Your task to perform on an android device: Show me productivity apps on the Play Store Image 0: 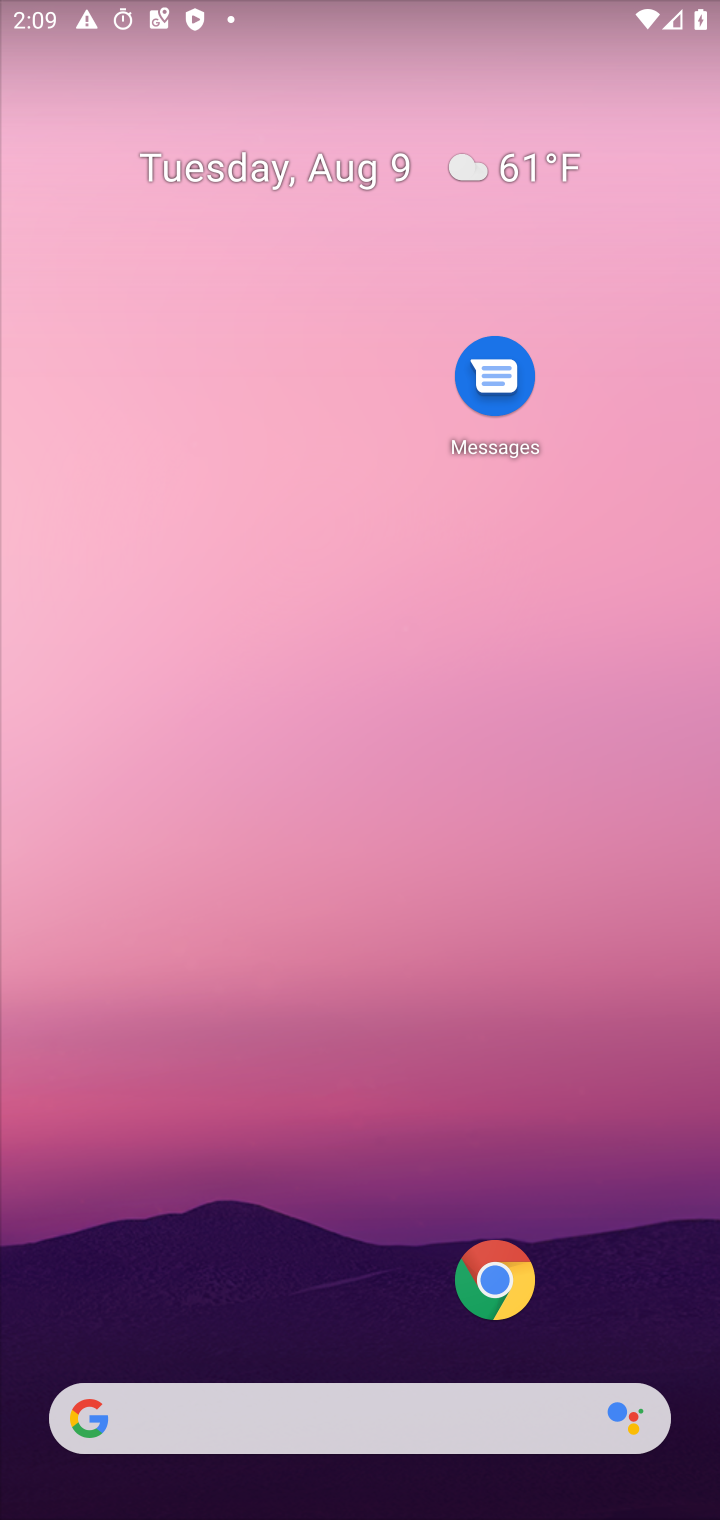
Step 0: press home button
Your task to perform on an android device: Show me productivity apps on the Play Store Image 1: 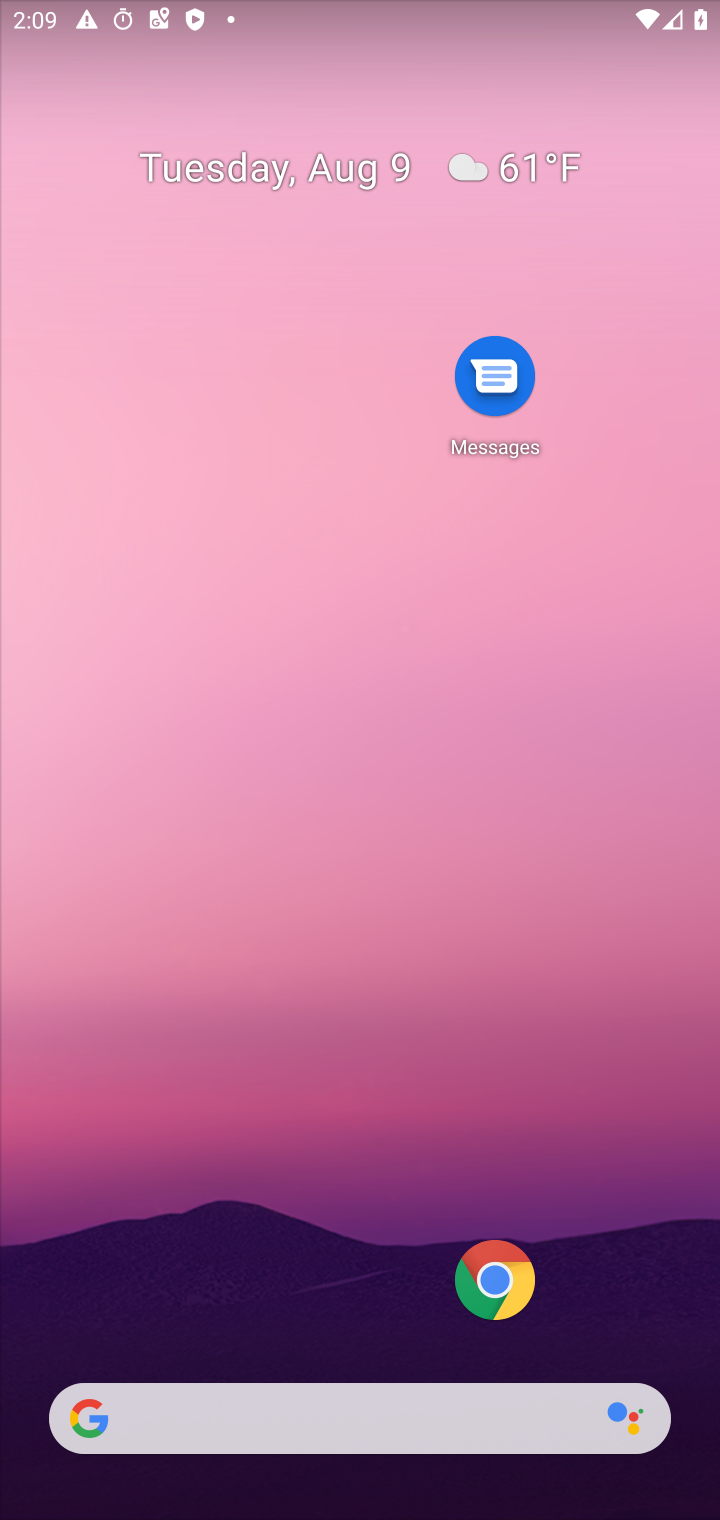
Step 1: drag from (402, 1257) to (613, 409)
Your task to perform on an android device: Show me productivity apps on the Play Store Image 2: 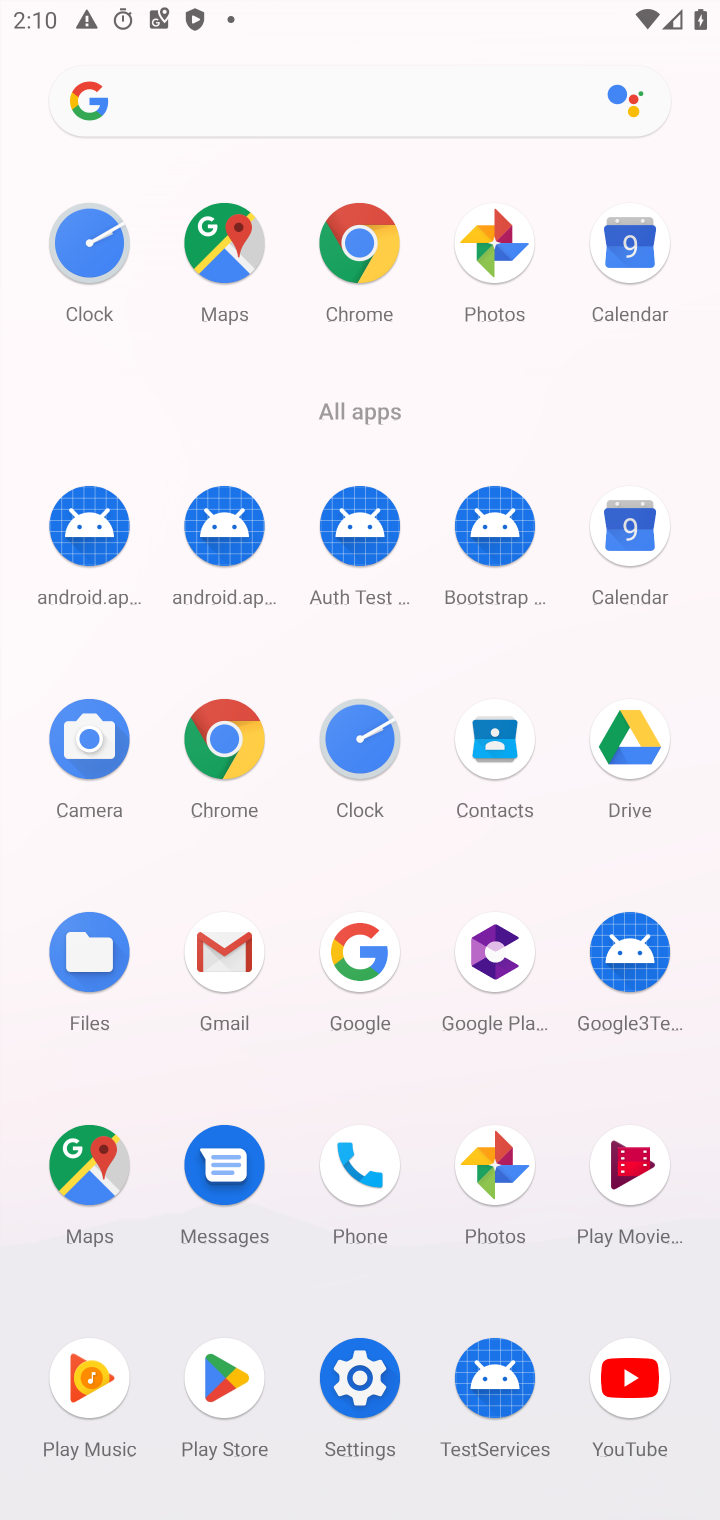
Step 2: click (216, 1366)
Your task to perform on an android device: Show me productivity apps on the Play Store Image 3: 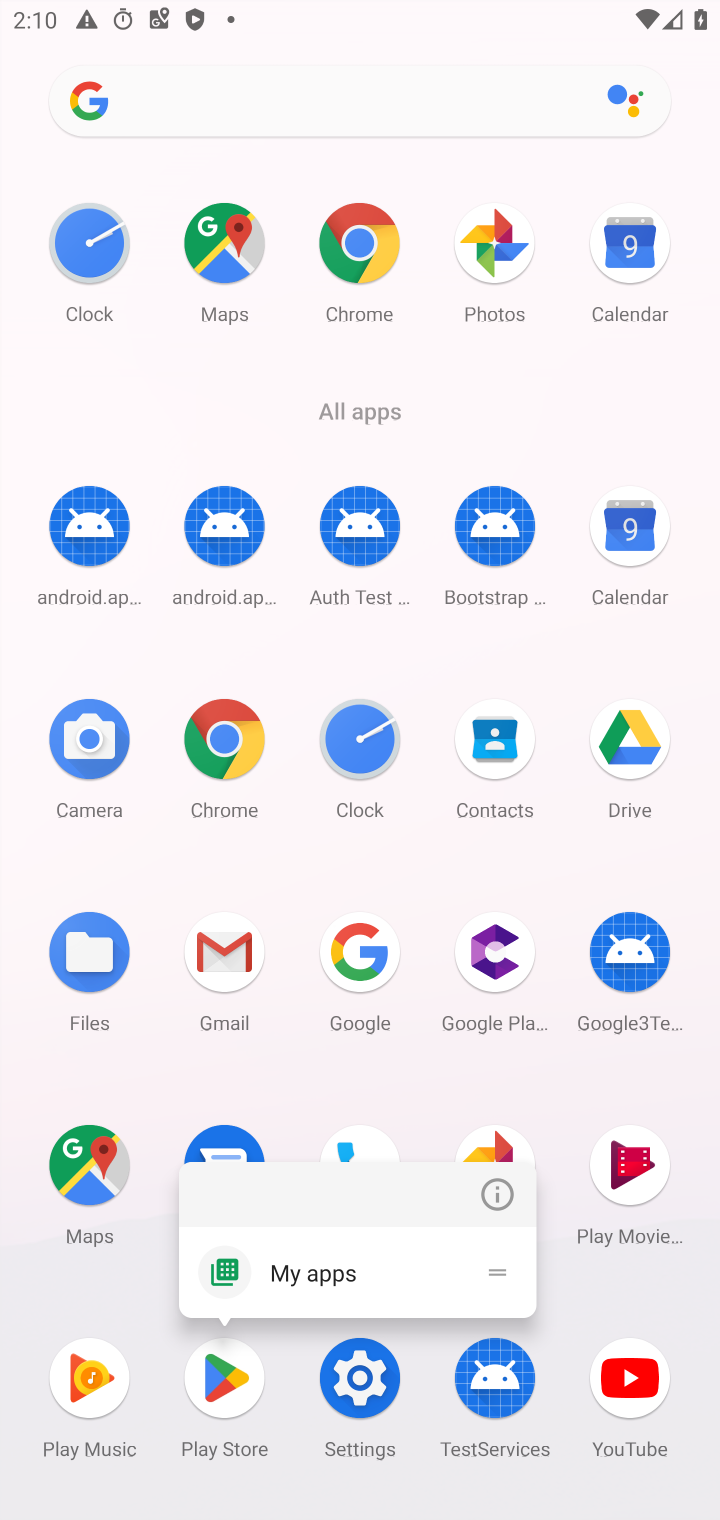
Step 3: click (216, 1385)
Your task to perform on an android device: Show me productivity apps on the Play Store Image 4: 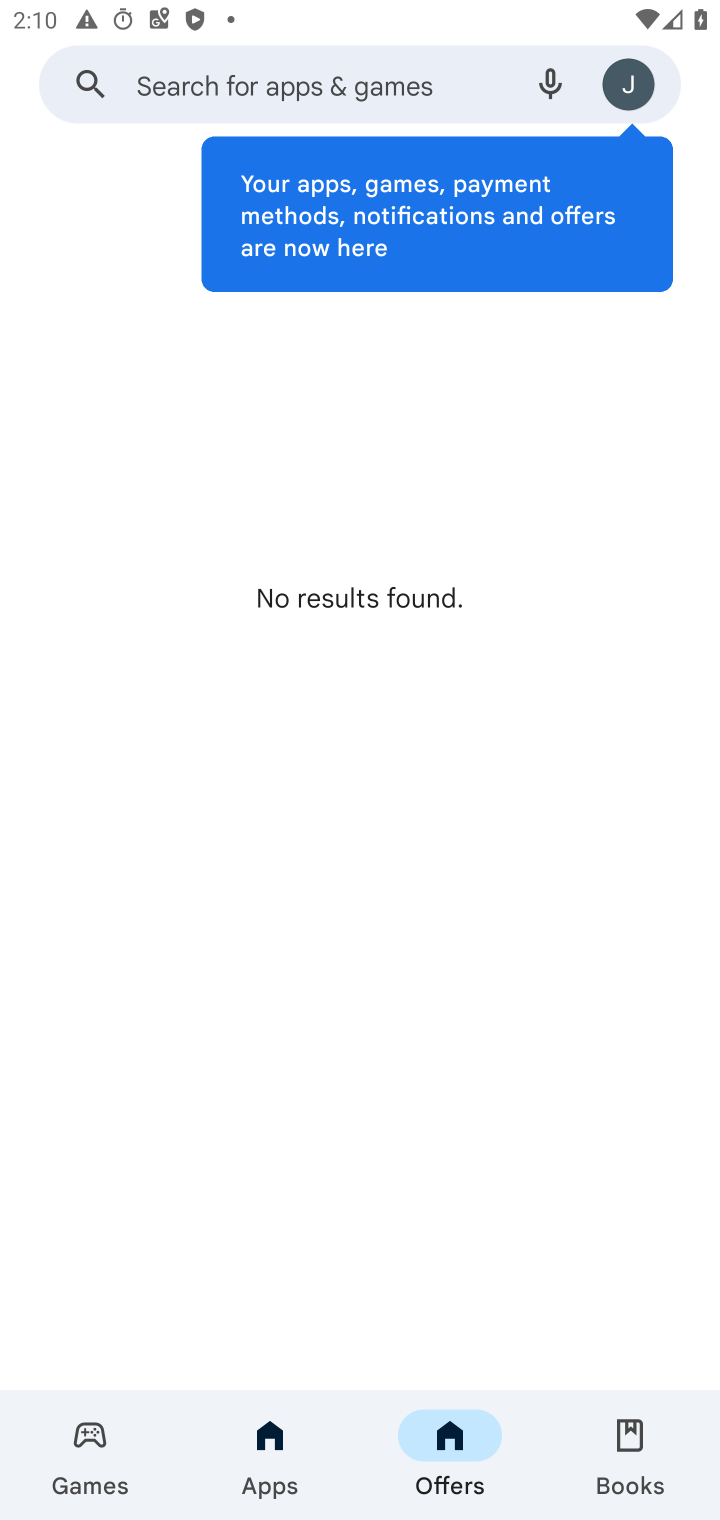
Step 4: click (274, 1435)
Your task to perform on an android device: Show me productivity apps on the Play Store Image 5: 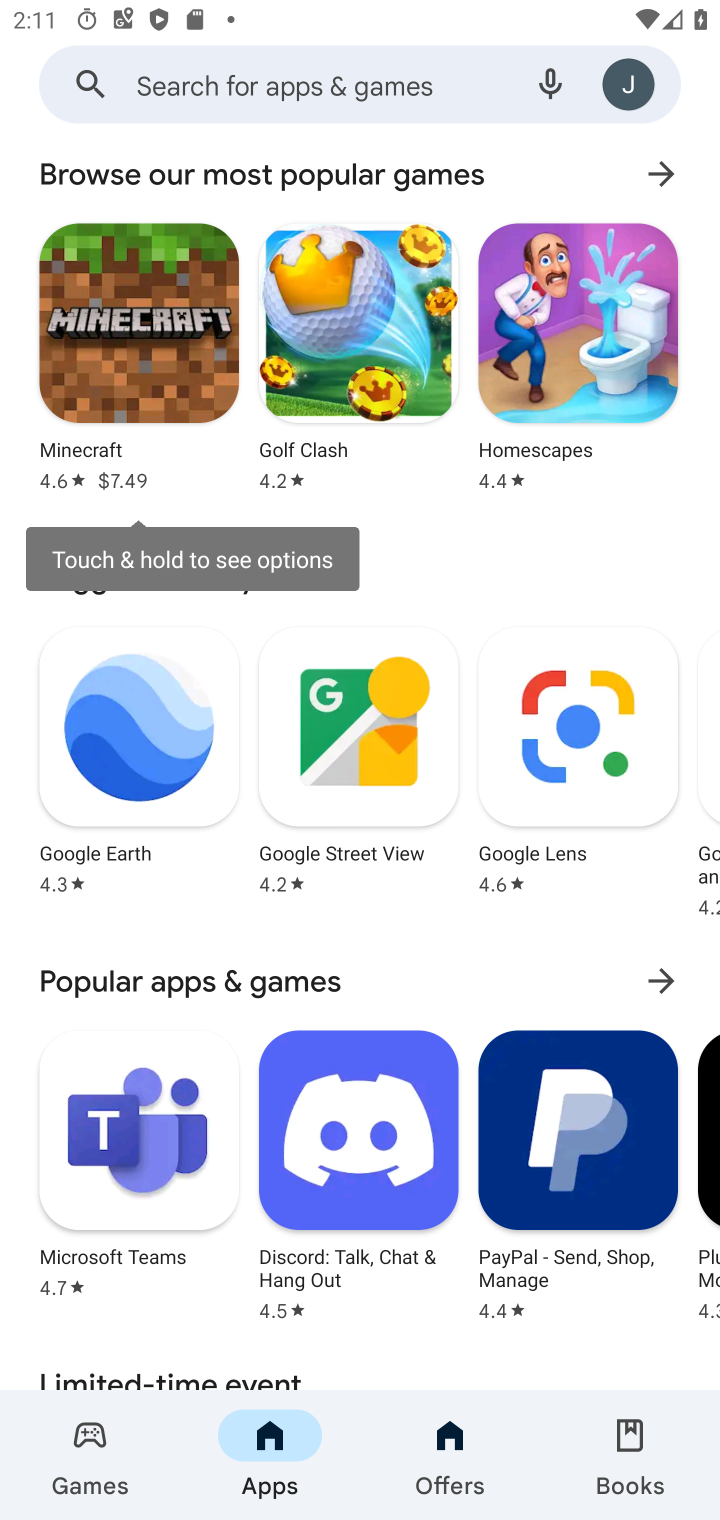
Step 5: task complete